Your task to perform on an android device: turn notification dots off Image 0: 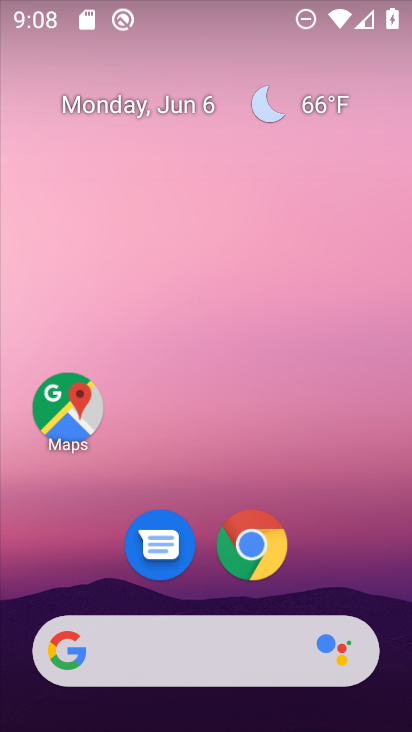
Step 0: drag from (203, 590) to (274, 187)
Your task to perform on an android device: turn notification dots off Image 1: 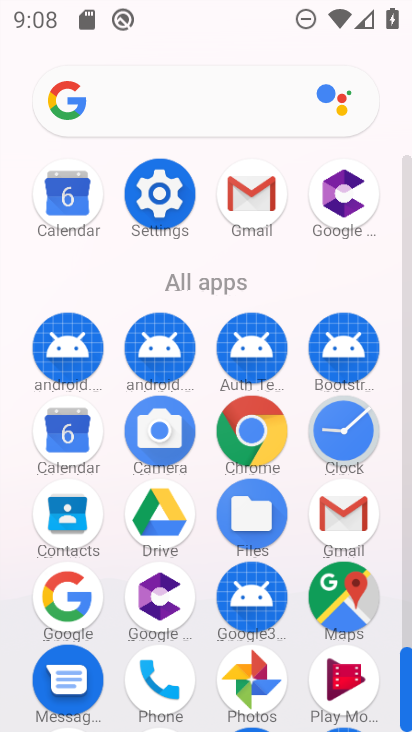
Step 1: click (162, 204)
Your task to perform on an android device: turn notification dots off Image 2: 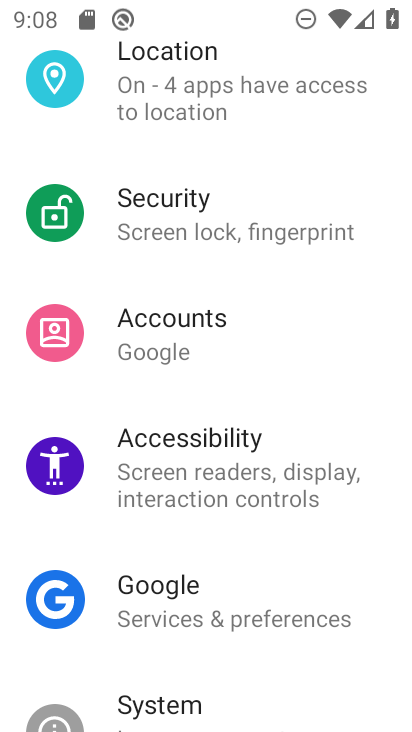
Step 2: drag from (211, 145) to (167, 656)
Your task to perform on an android device: turn notification dots off Image 3: 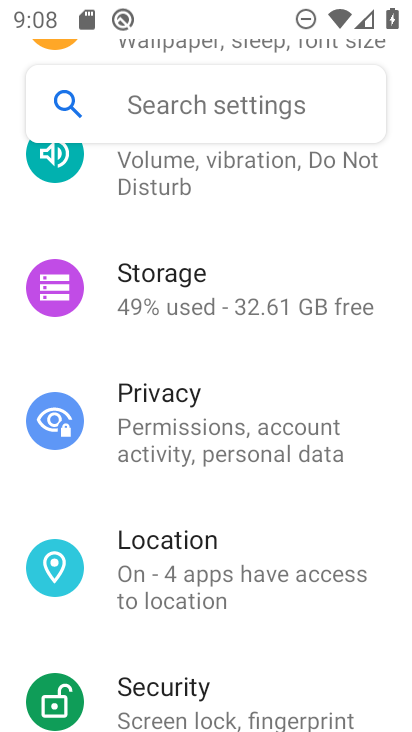
Step 3: drag from (235, 236) to (204, 628)
Your task to perform on an android device: turn notification dots off Image 4: 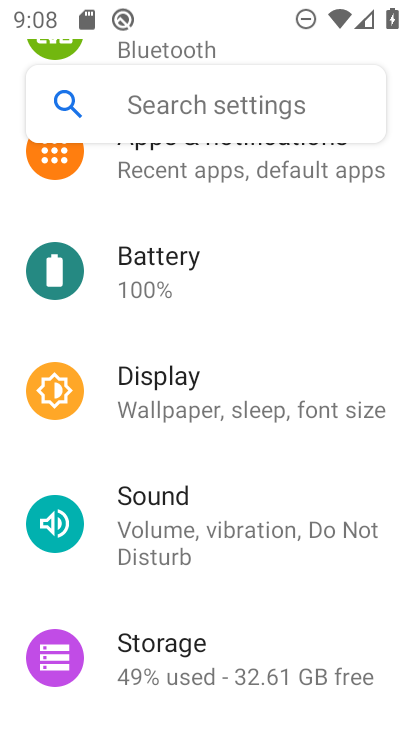
Step 4: drag from (235, 262) to (187, 627)
Your task to perform on an android device: turn notification dots off Image 5: 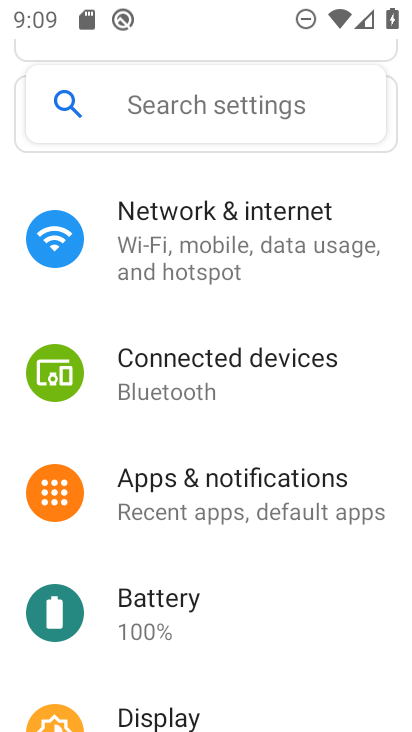
Step 5: click (215, 483)
Your task to perform on an android device: turn notification dots off Image 6: 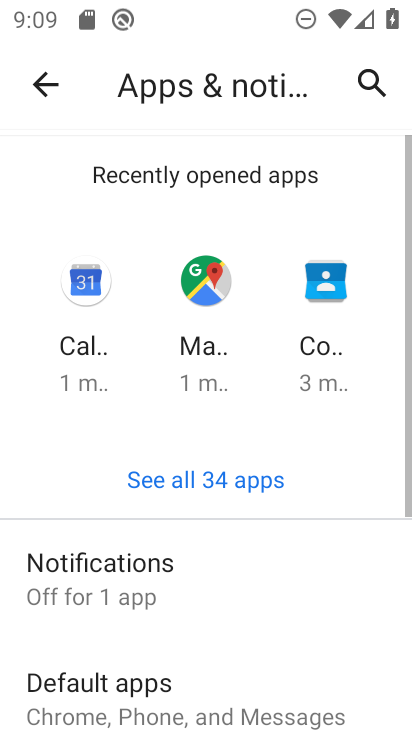
Step 6: drag from (162, 616) to (201, 295)
Your task to perform on an android device: turn notification dots off Image 7: 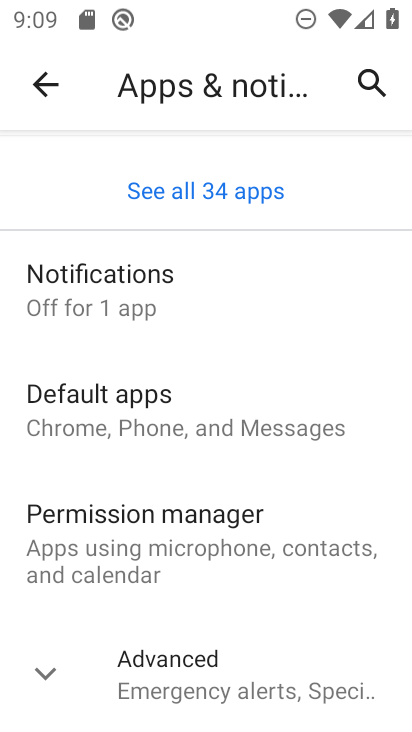
Step 7: drag from (219, 654) to (233, 549)
Your task to perform on an android device: turn notification dots off Image 8: 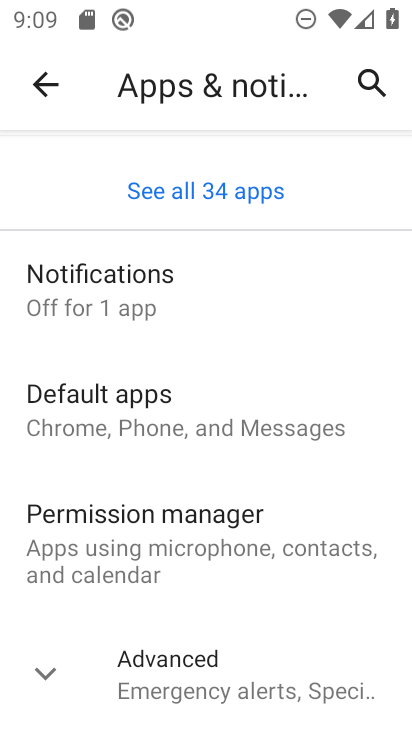
Step 8: click (112, 293)
Your task to perform on an android device: turn notification dots off Image 9: 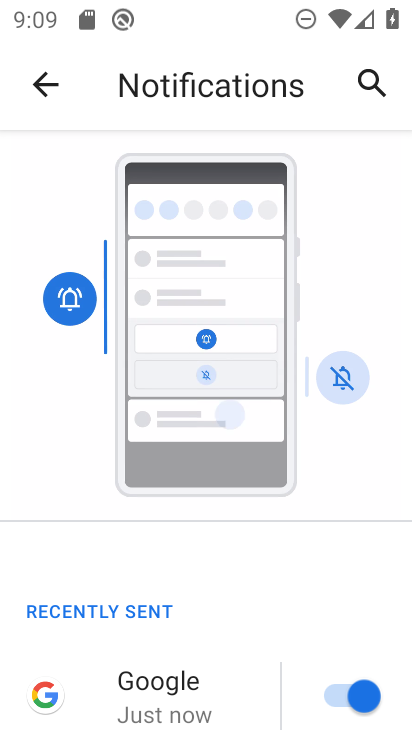
Step 9: drag from (198, 649) to (263, 270)
Your task to perform on an android device: turn notification dots off Image 10: 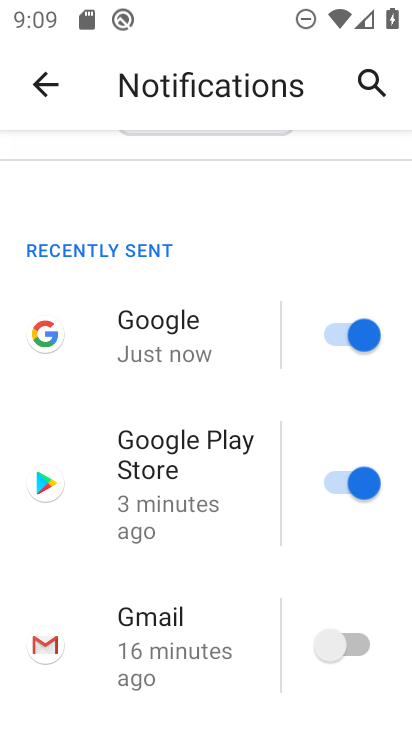
Step 10: drag from (201, 640) to (252, 261)
Your task to perform on an android device: turn notification dots off Image 11: 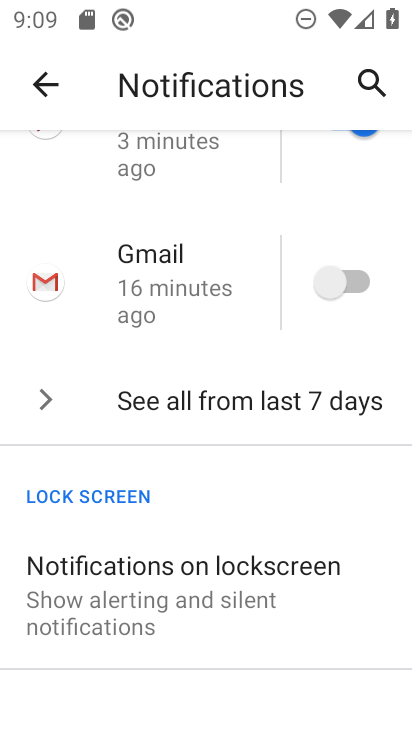
Step 11: drag from (227, 602) to (257, 292)
Your task to perform on an android device: turn notification dots off Image 12: 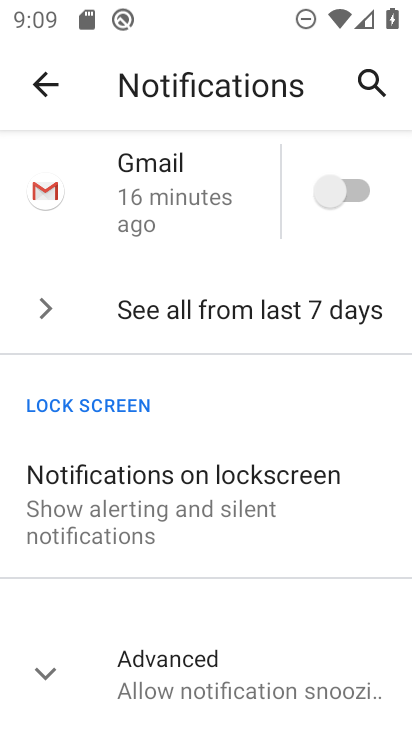
Step 12: click (207, 665)
Your task to perform on an android device: turn notification dots off Image 13: 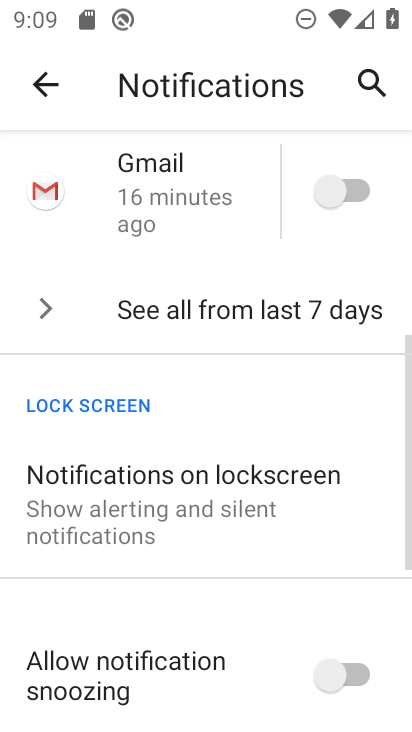
Step 13: drag from (181, 665) to (222, 365)
Your task to perform on an android device: turn notification dots off Image 14: 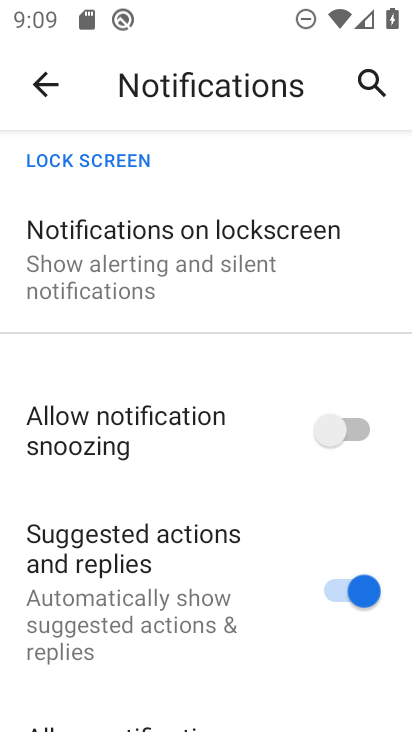
Step 14: drag from (202, 623) to (263, 219)
Your task to perform on an android device: turn notification dots off Image 15: 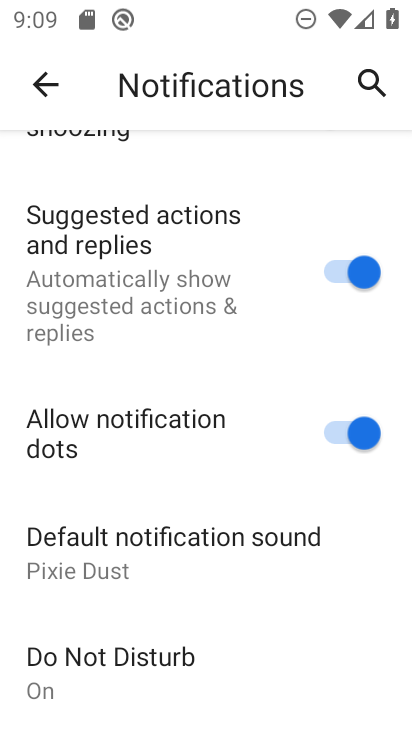
Step 15: click (328, 440)
Your task to perform on an android device: turn notification dots off Image 16: 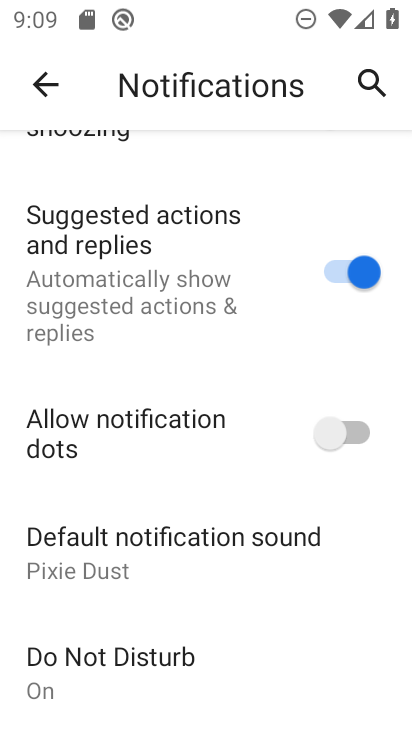
Step 16: task complete